Your task to perform on an android device: Open the web browser Image 0: 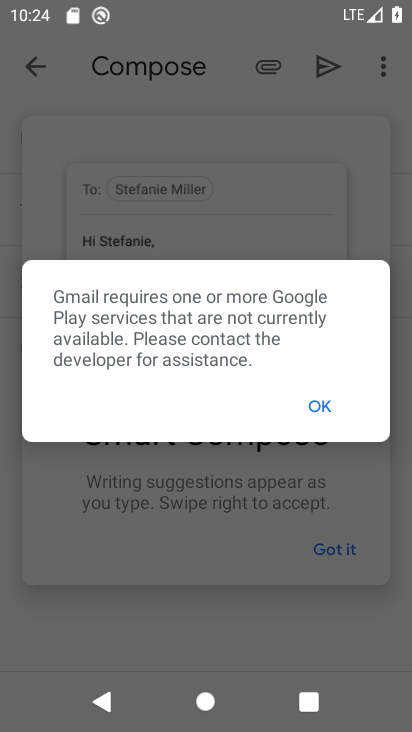
Step 0: press home button
Your task to perform on an android device: Open the web browser Image 1: 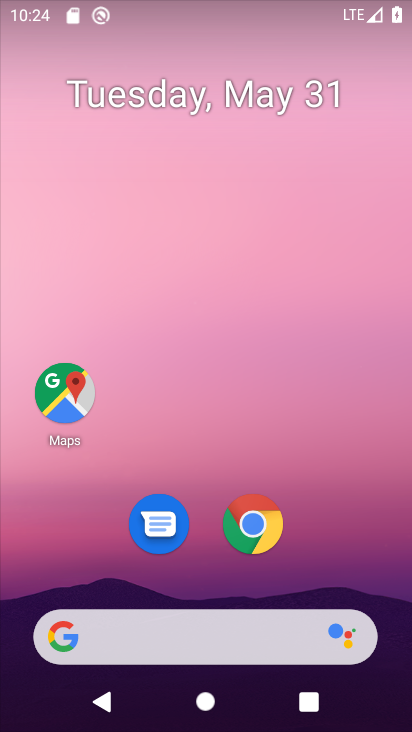
Step 1: click (217, 640)
Your task to perform on an android device: Open the web browser Image 2: 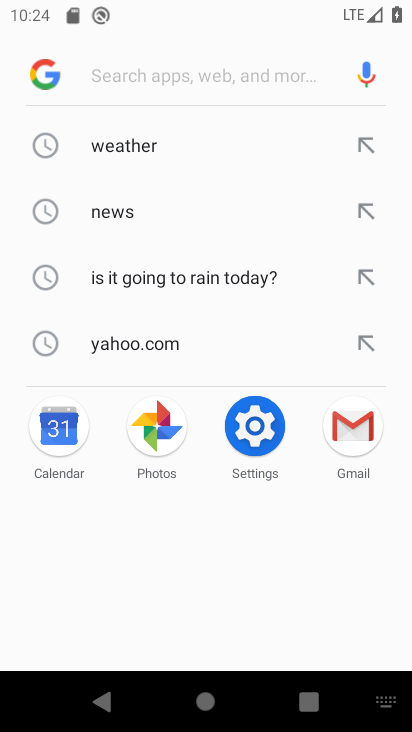
Step 2: task complete